Your task to perform on an android device: toggle notifications settings in the gmail app Image 0: 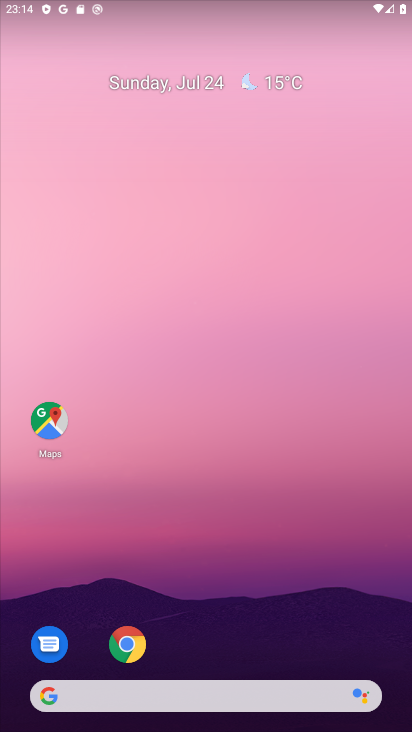
Step 0: drag from (191, 723) to (158, 172)
Your task to perform on an android device: toggle notifications settings in the gmail app Image 1: 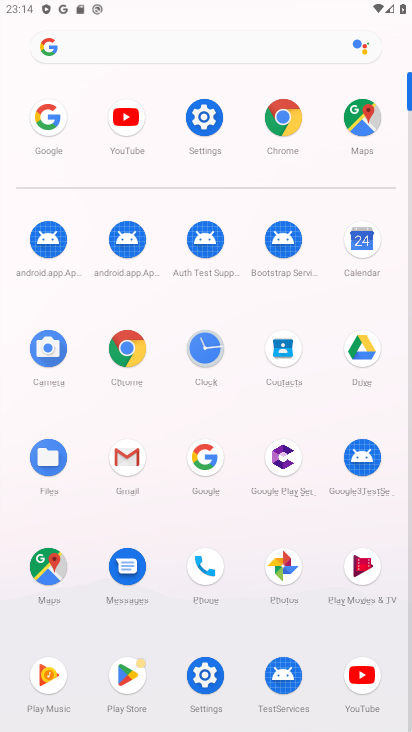
Step 1: click (128, 465)
Your task to perform on an android device: toggle notifications settings in the gmail app Image 2: 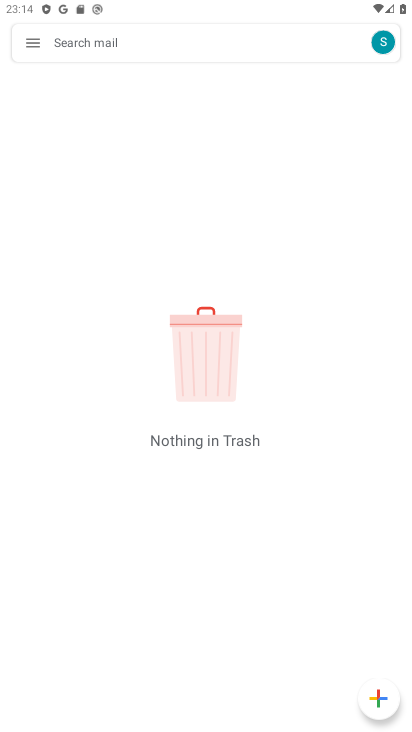
Step 2: click (33, 44)
Your task to perform on an android device: toggle notifications settings in the gmail app Image 3: 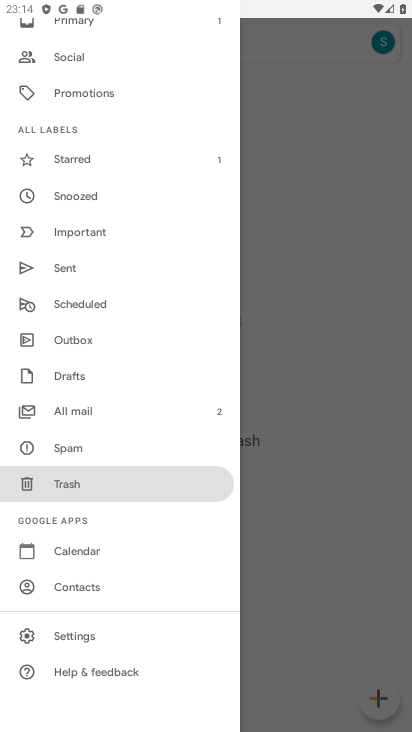
Step 3: click (80, 630)
Your task to perform on an android device: toggle notifications settings in the gmail app Image 4: 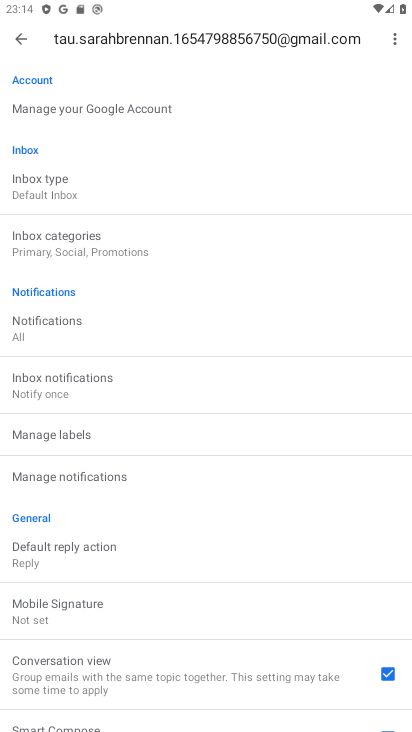
Step 4: click (44, 321)
Your task to perform on an android device: toggle notifications settings in the gmail app Image 5: 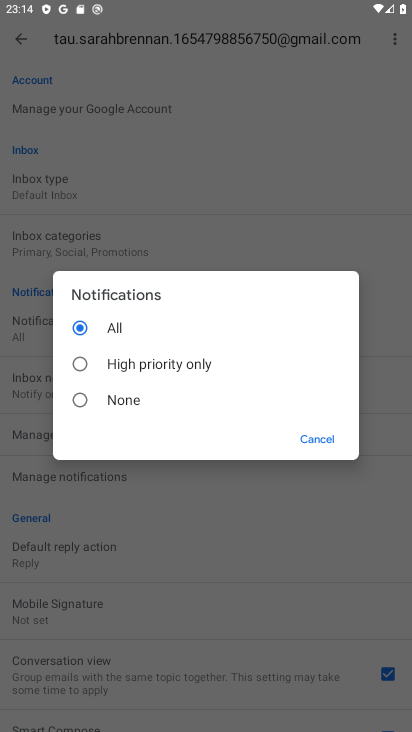
Step 5: click (84, 403)
Your task to perform on an android device: toggle notifications settings in the gmail app Image 6: 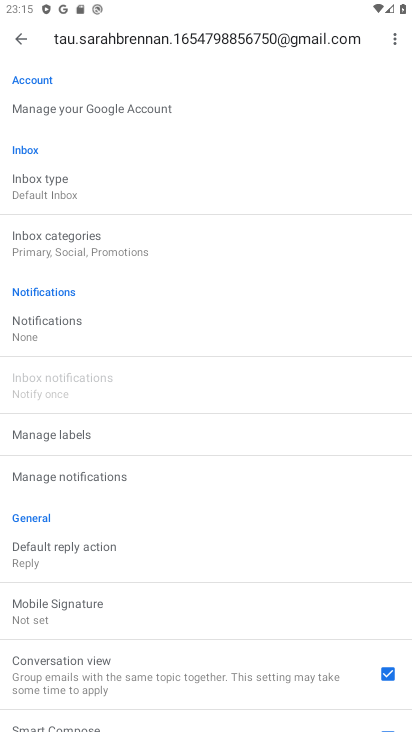
Step 6: task complete